Your task to perform on an android device: turn off notifications settings in the gmail app Image 0: 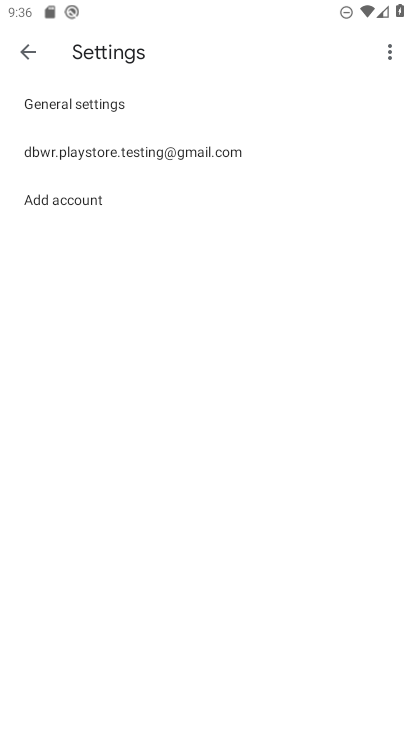
Step 0: press home button
Your task to perform on an android device: turn off notifications settings in the gmail app Image 1: 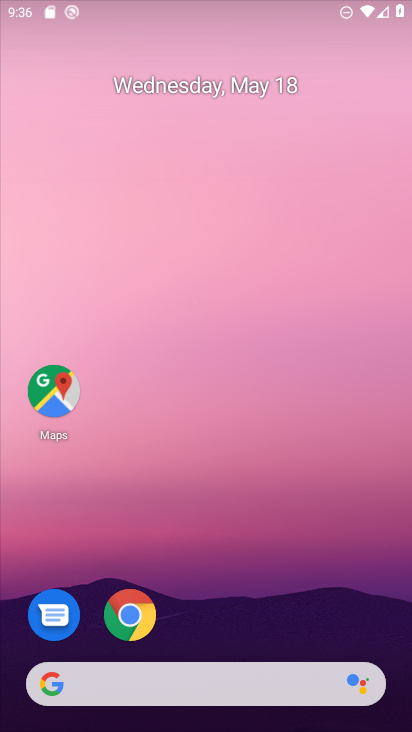
Step 1: drag from (265, 596) to (347, 109)
Your task to perform on an android device: turn off notifications settings in the gmail app Image 2: 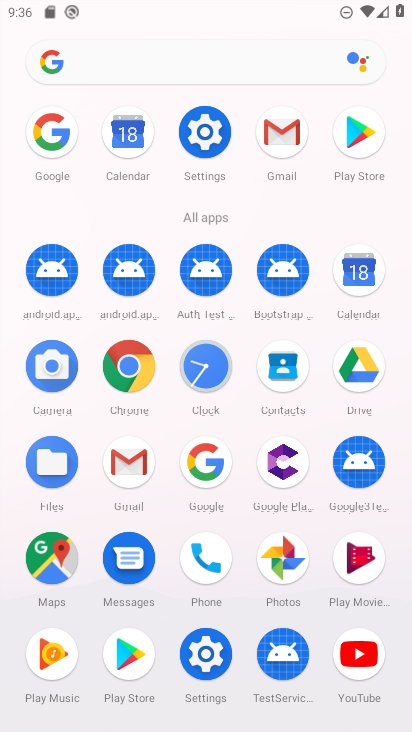
Step 2: click (285, 128)
Your task to perform on an android device: turn off notifications settings in the gmail app Image 3: 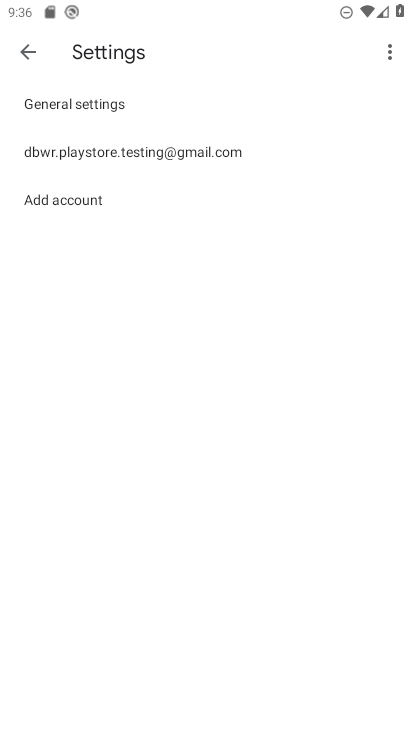
Step 3: drag from (66, 149) to (360, 236)
Your task to perform on an android device: turn off notifications settings in the gmail app Image 4: 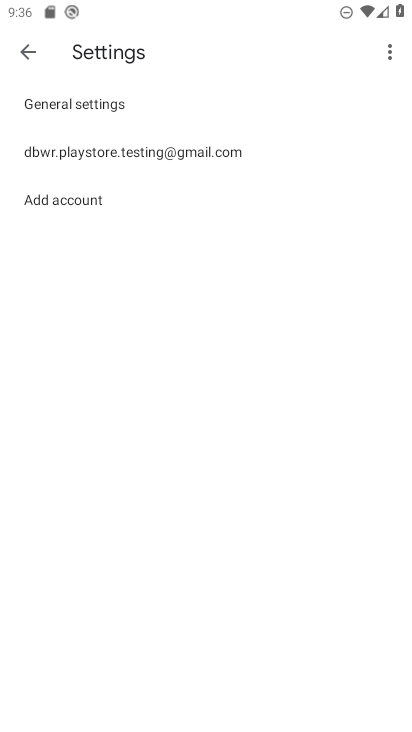
Step 4: click (146, 159)
Your task to perform on an android device: turn off notifications settings in the gmail app Image 5: 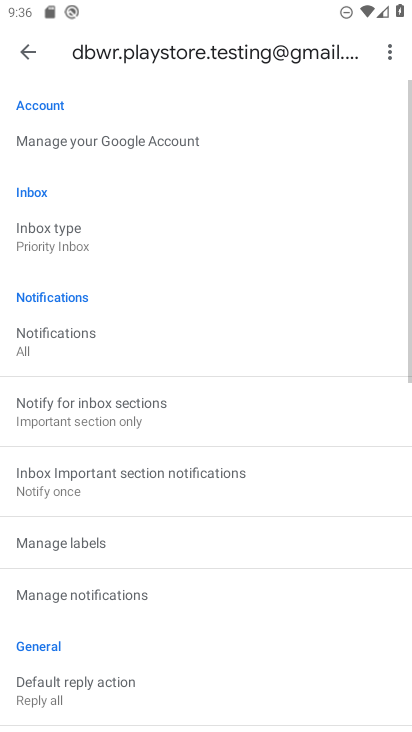
Step 5: click (115, 324)
Your task to perform on an android device: turn off notifications settings in the gmail app Image 6: 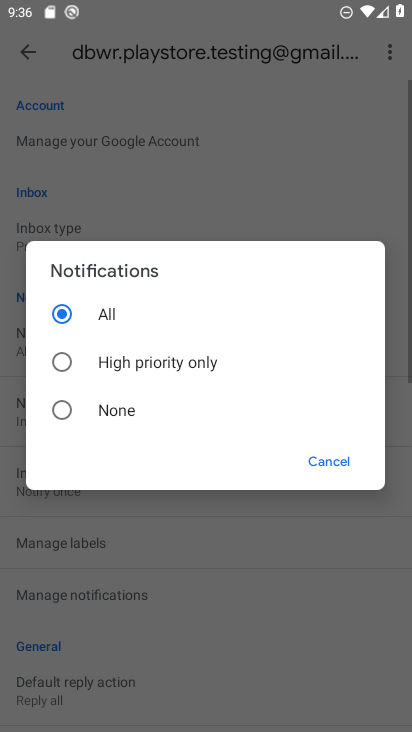
Step 6: click (65, 419)
Your task to perform on an android device: turn off notifications settings in the gmail app Image 7: 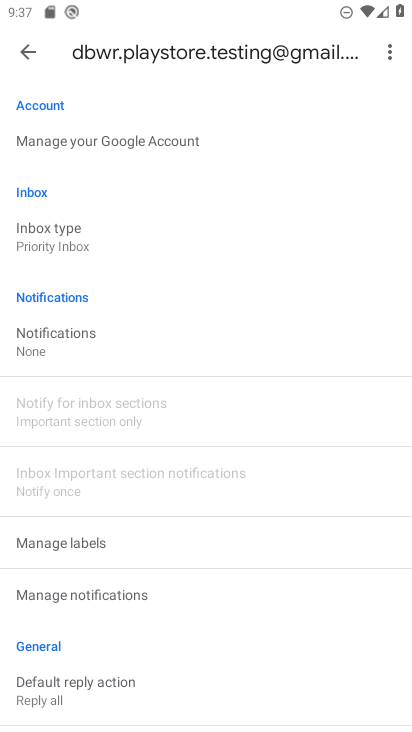
Step 7: task complete